Your task to perform on an android device: Open maps Image 0: 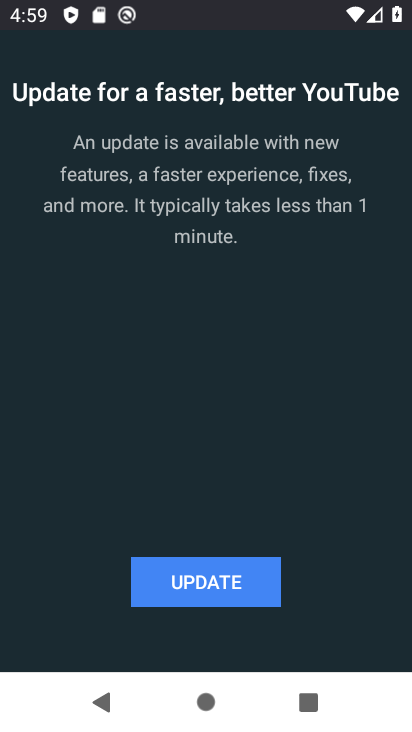
Step 0: press home button
Your task to perform on an android device: Open maps Image 1: 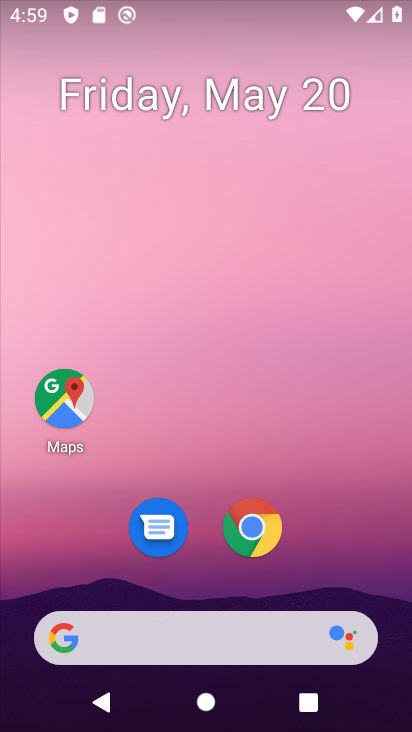
Step 1: click (221, 20)
Your task to perform on an android device: Open maps Image 2: 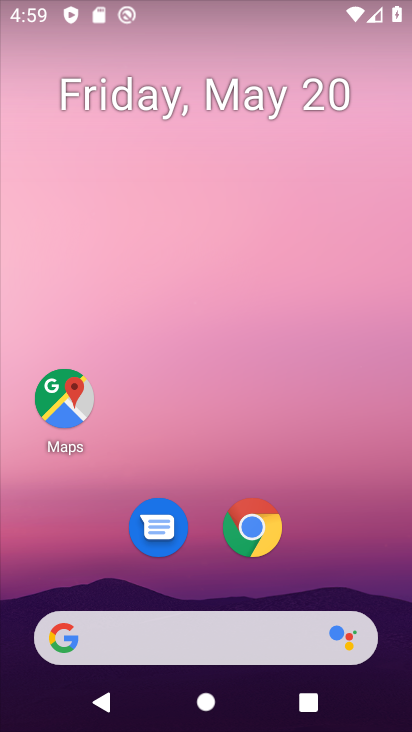
Step 2: drag from (284, 613) to (286, 41)
Your task to perform on an android device: Open maps Image 3: 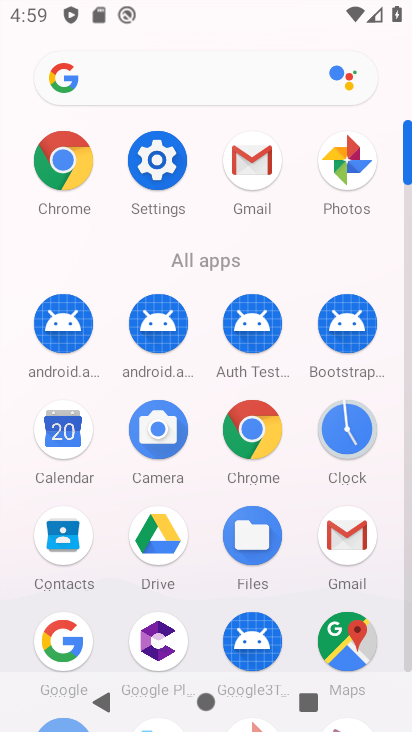
Step 3: click (348, 644)
Your task to perform on an android device: Open maps Image 4: 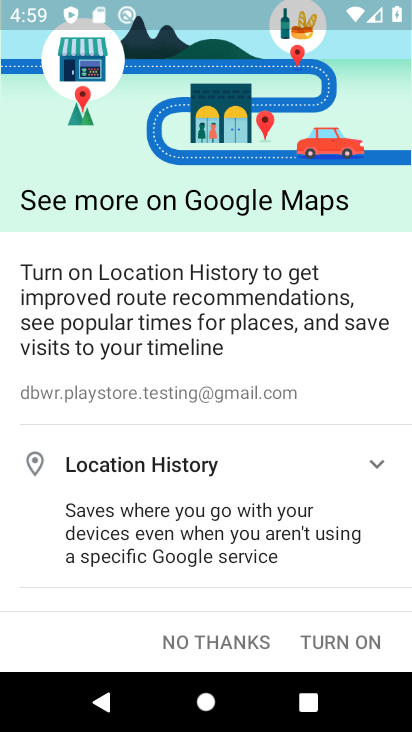
Step 4: click (207, 640)
Your task to perform on an android device: Open maps Image 5: 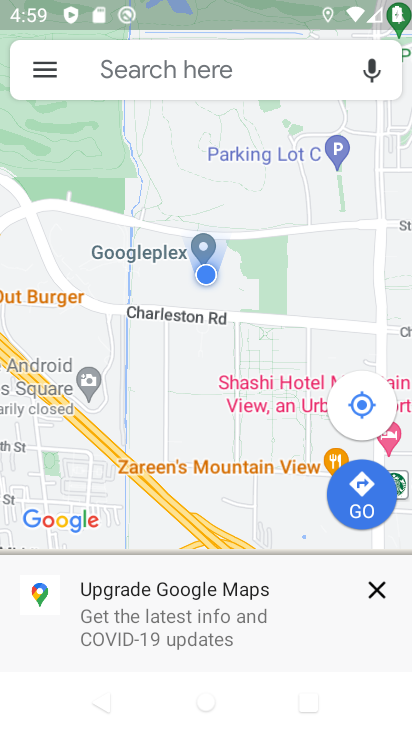
Step 5: task complete